Your task to perform on an android device: refresh tabs in the chrome app Image 0: 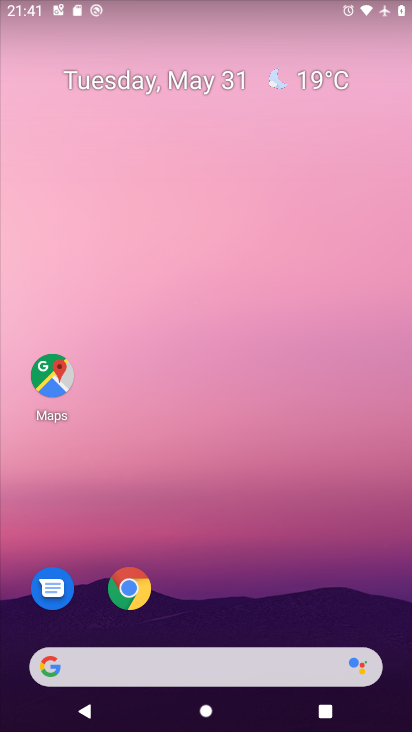
Step 0: click (127, 589)
Your task to perform on an android device: refresh tabs in the chrome app Image 1: 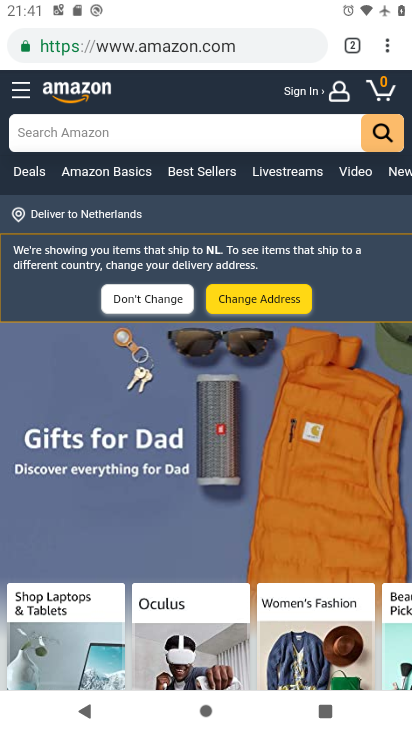
Step 1: click (386, 60)
Your task to perform on an android device: refresh tabs in the chrome app Image 2: 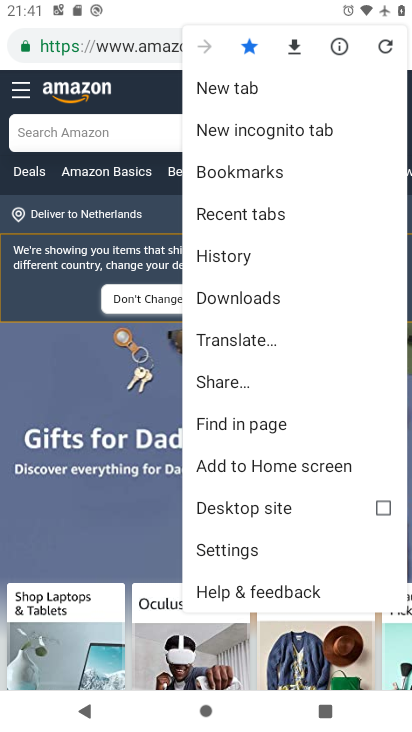
Step 2: click (379, 45)
Your task to perform on an android device: refresh tabs in the chrome app Image 3: 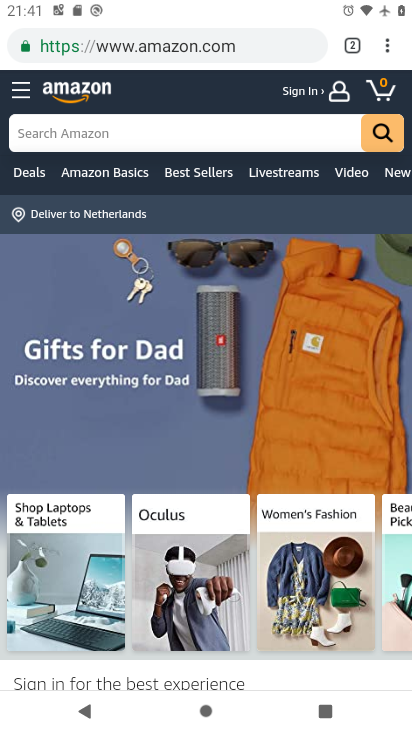
Step 3: task complete